Your task to perform on an android device: check android version Image 0: 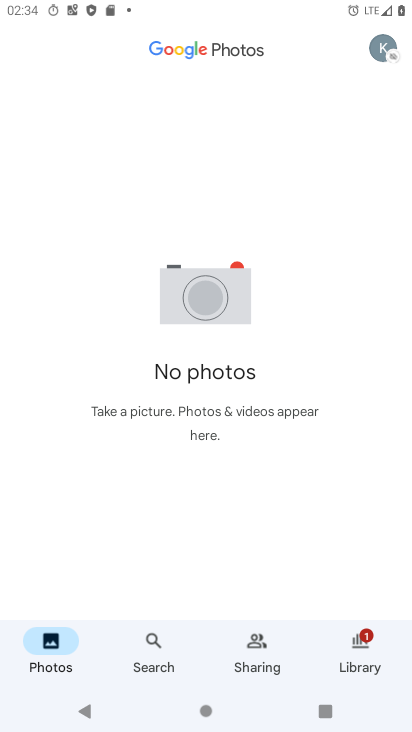
Step 0: press home button
Your task to perform on an android device: check android version Image 1: 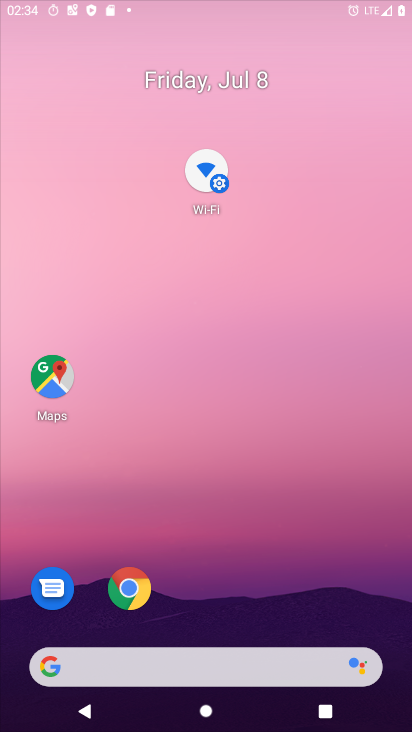
Step 1: drag from (174, 577) to (149, 8)
Your task to perform on an android device: check android version Image 2: 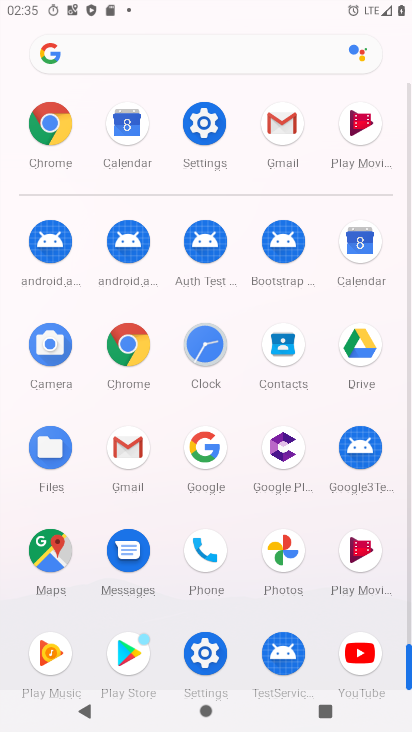
Step 2: click (202, 128)
Your task to perform on an android device: check android version Image 3: 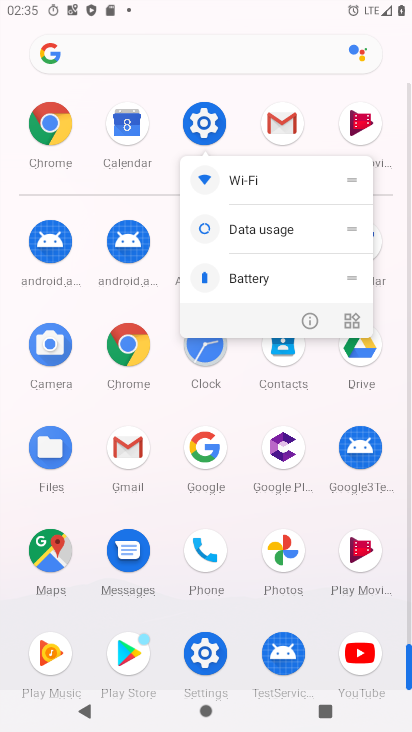
Step 3: click (312, 316)
Your task to perform on an android device: check android version Image 4: 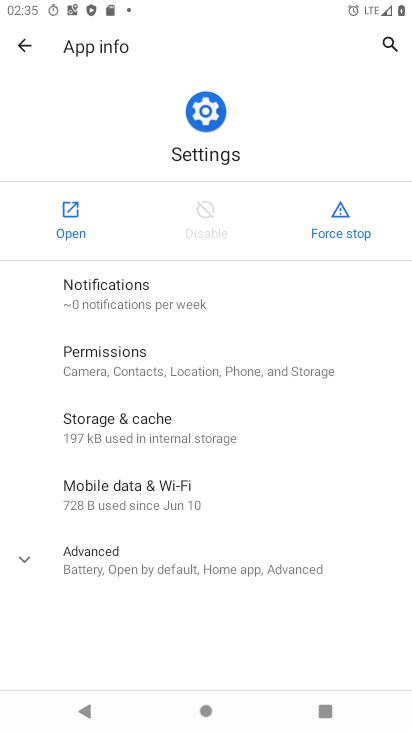
Step 4: click (84, 208)
Your task to perform on an android device: check android version Image 5: 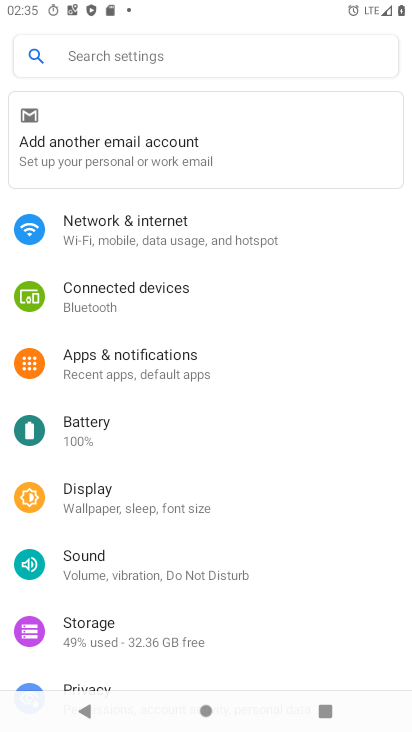
Step 5: drag from (185, 525) to (185, 97)
Your task to perform on an android device: check android version Image 6: 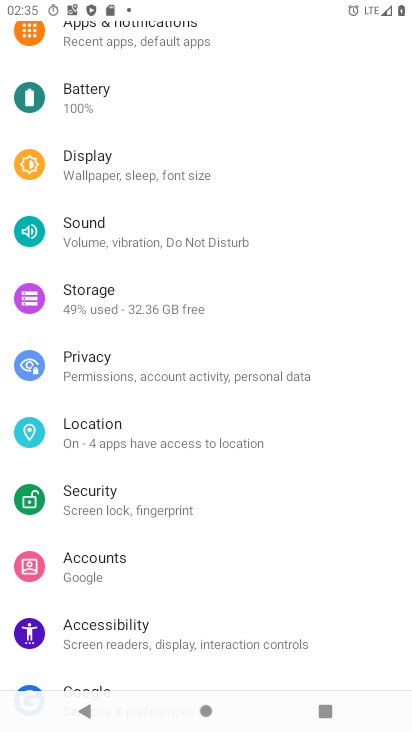
Step 6: drag from (160, 596) to (147, 178)
Your task to perform on an android device: check android version Image 7: 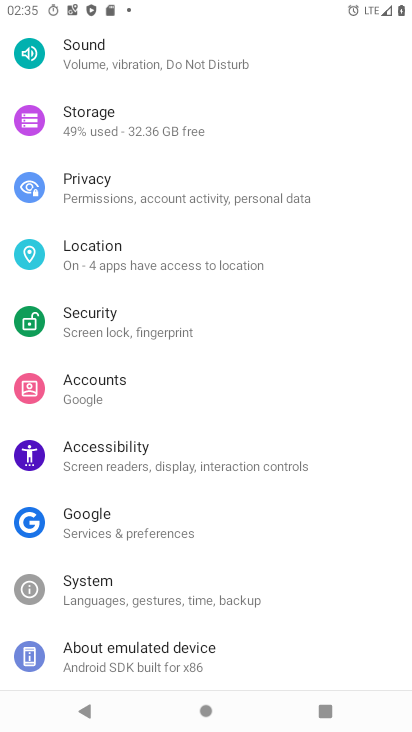
Step 7: click (156, 667)
Your task to perform on an android device: check android version Image 8: 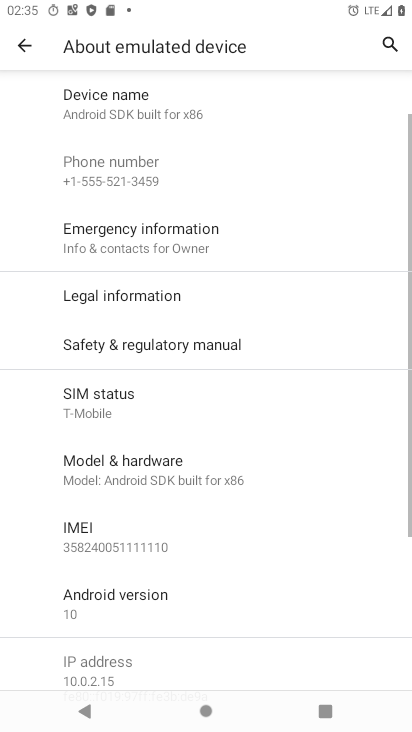
Step 8: click (154, 599)
Your task to perform on an android device: check android version Image 9: 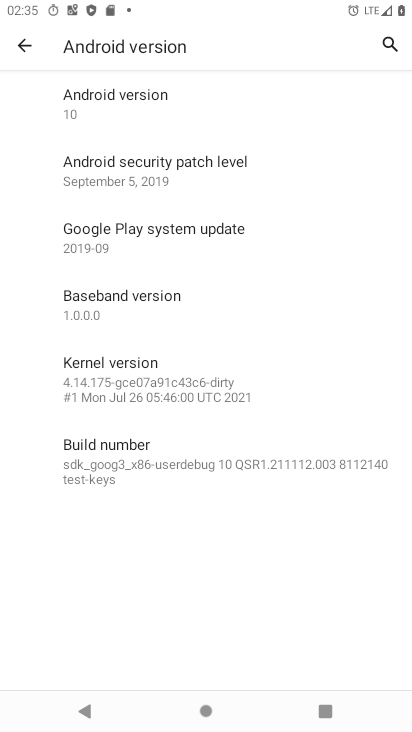
Step 9: click (95, 104)
Your task to perform on an android device: check android version Image 10: 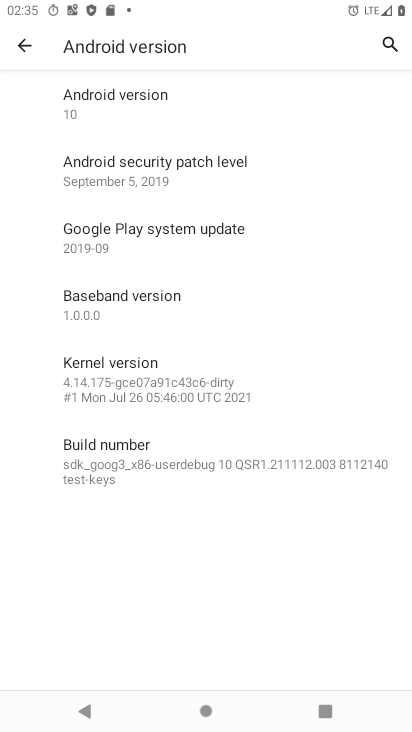
Step 10: task complete